Your task to perform on an android device: Check the weather Image 0: 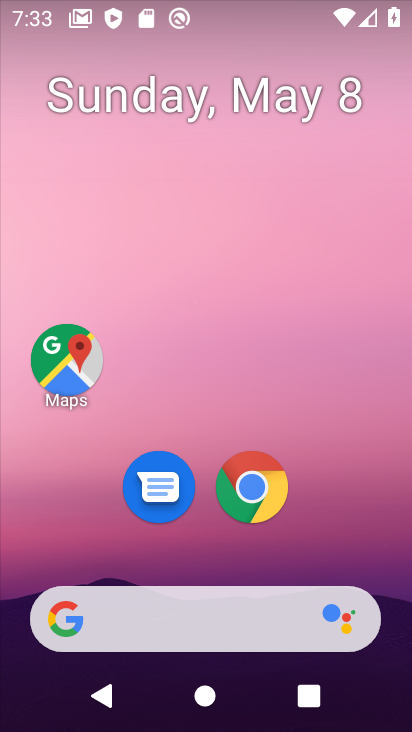
Step 0: click (224, 624)
Your task to perform on an android device: Check the weather Image 1: 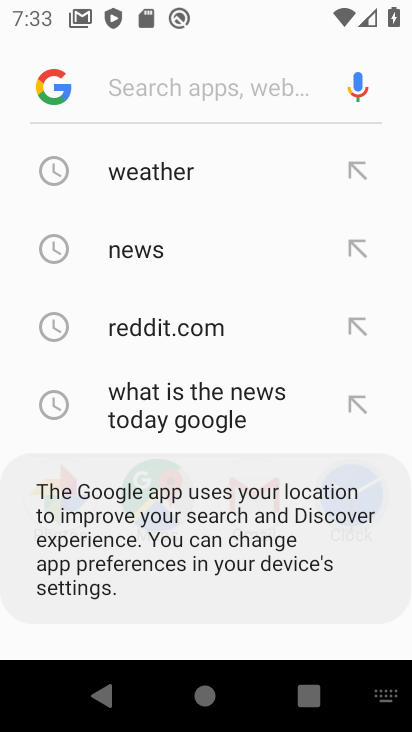
Step 1: click (190, 177)
Your task to perform on an android device: Check the weather Image 2: 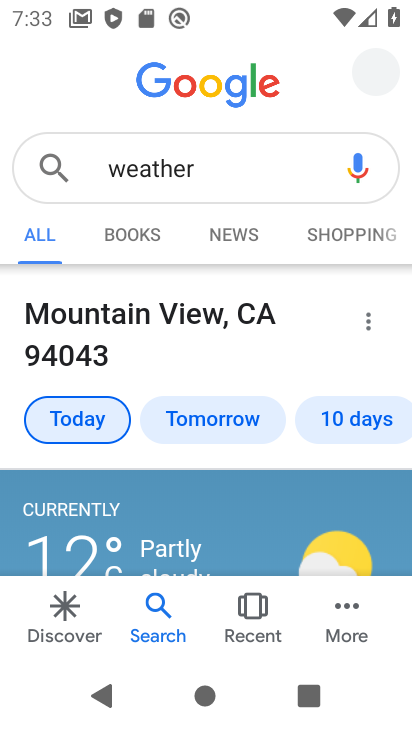
Step 2: task complete